Your task to perform on an android device: What's the weather today? Image 0: 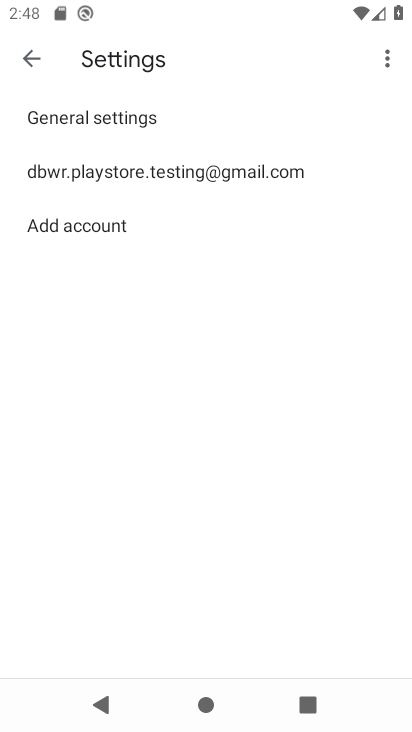
Step 0: press home button
Your task to perform on an android device: What's the weather today? Image 1: 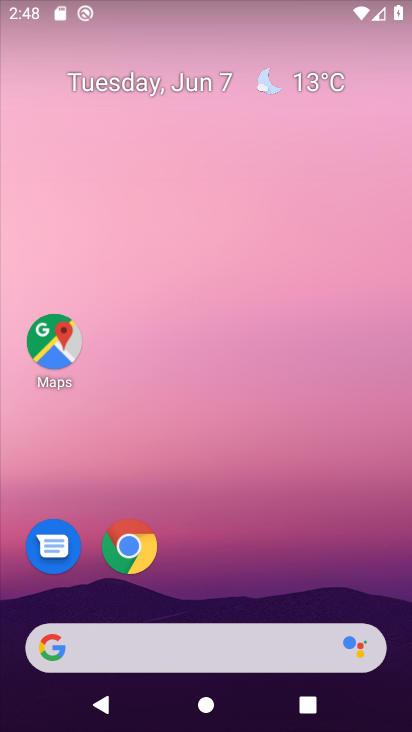
Step 1: click (261, 89)
Your task to perform on an android device: What's the weather today? Image 2: 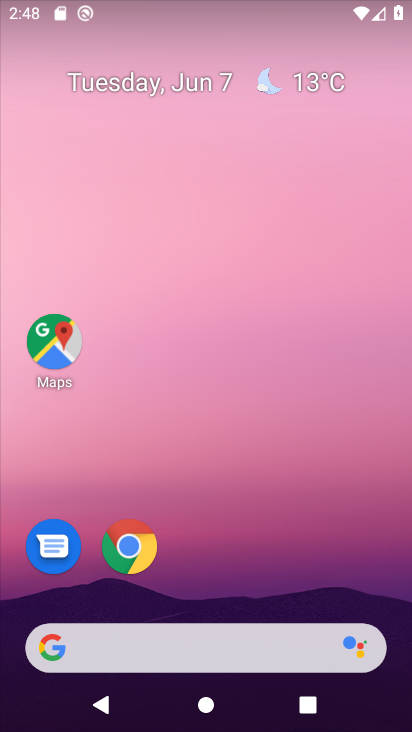
Step 2: click (293, 104)
Your task to perform on an android device: What's the weather today? Image 3: 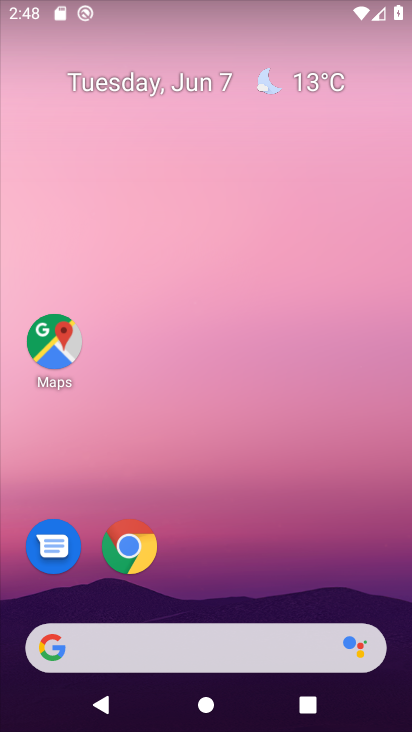
Step 3: click (280, 81)
Your task to perform on an android device: What's the weather today? Image 4: 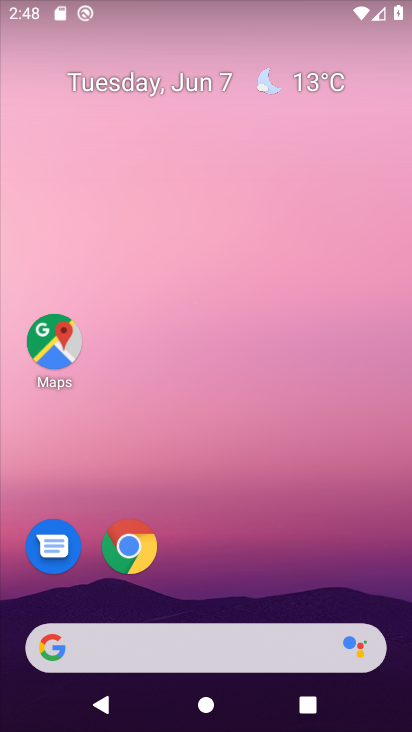
Step 4: click (233, 653)
Your task to perform on an android device: What's the weather today? Image 5: 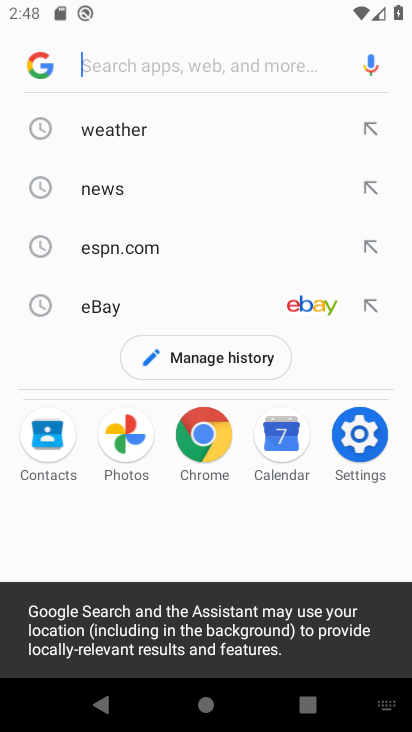
Step 5: click (144, 121)
Your task to perform on an android device: What's the weather today? Image 6: 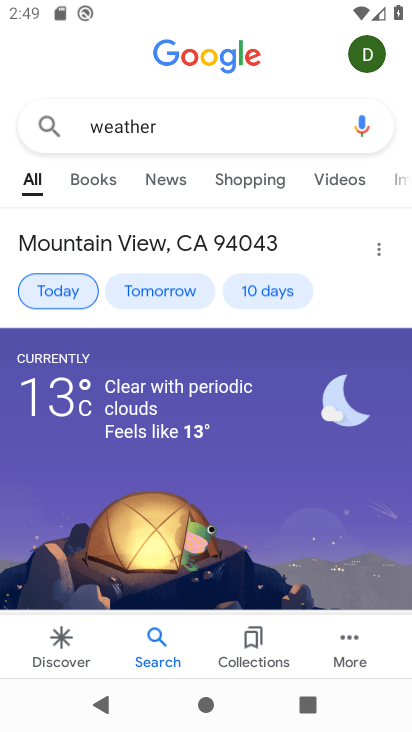
Step 6: task complete